Your task to perform on an android device: see sites visited before in the chrome app Image 0: 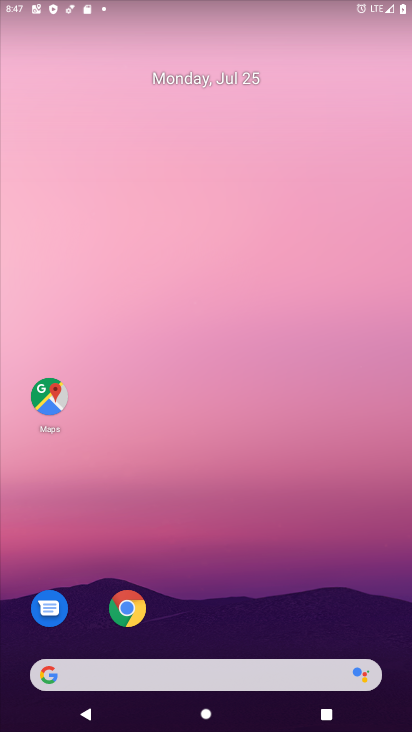
Step 0: drag from (245, 711) to (223, 34)
Your task to perform on an android device: see sites visited before in the chrome app Image 1: 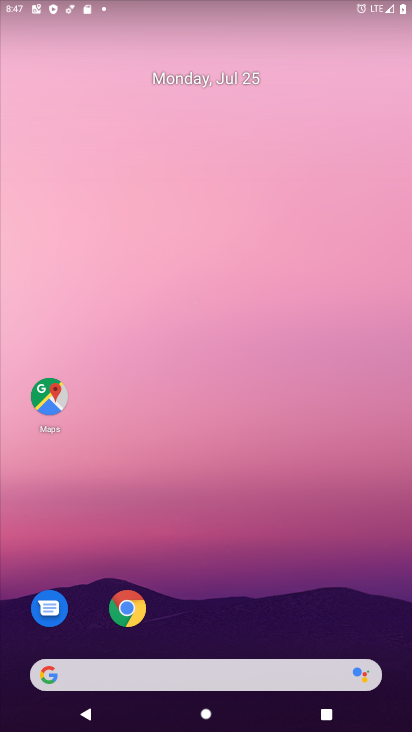
Step 1: drag from (237, 728) to (241, 58)
Your task to perform on an android device: see sites visited before in the chrome app Image 2: 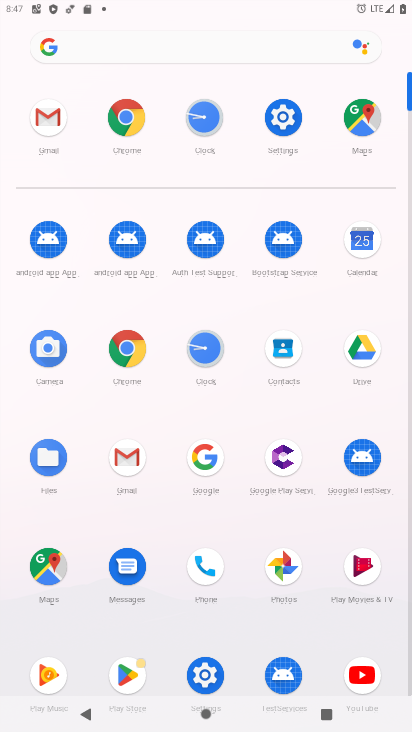
Step 2: click (129, 347)
Your task to perform on an android device: see sites visited before in the chrome app Image 3: 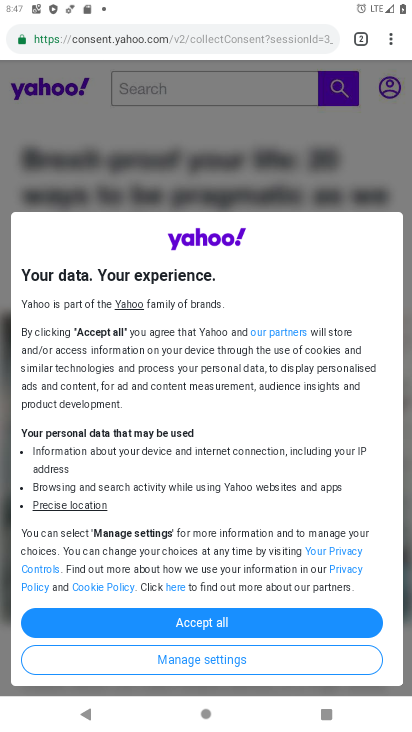
Step 3: click (392, 42)
Your task to perform on an android device: see sites visited before in the chrome app Image 4: 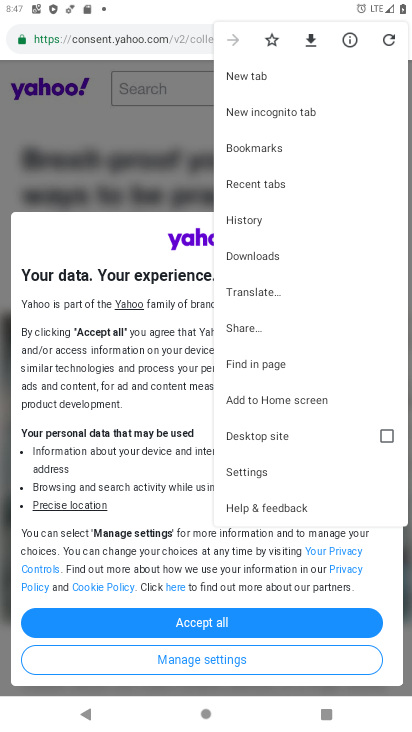
Step 4: click (246, 184)
Your task to perform on an android device: see sites visited before in the chrome app Image 5: 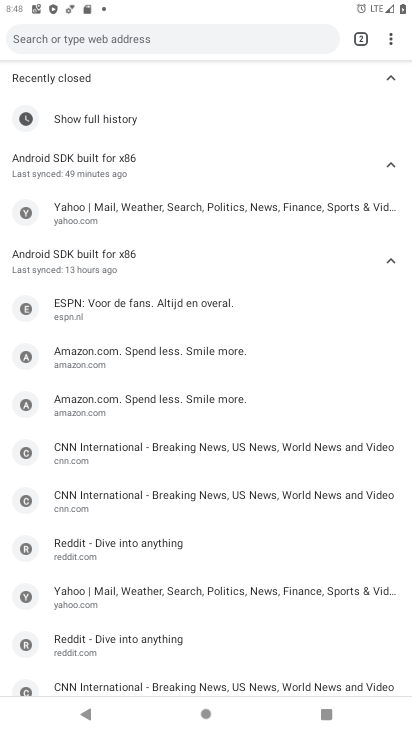
Step 5: task complete